Your task to perform on an android device: Go to ESPN.com Image 0: 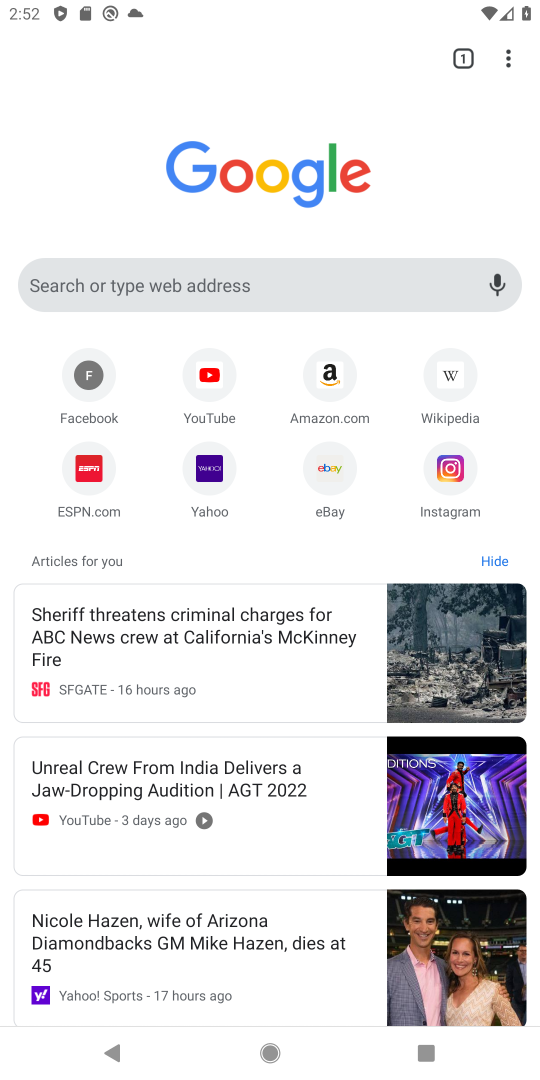
Step 0: click (85, 283)
Your task to perform on an android device: Go to ESPN.com Image 1: 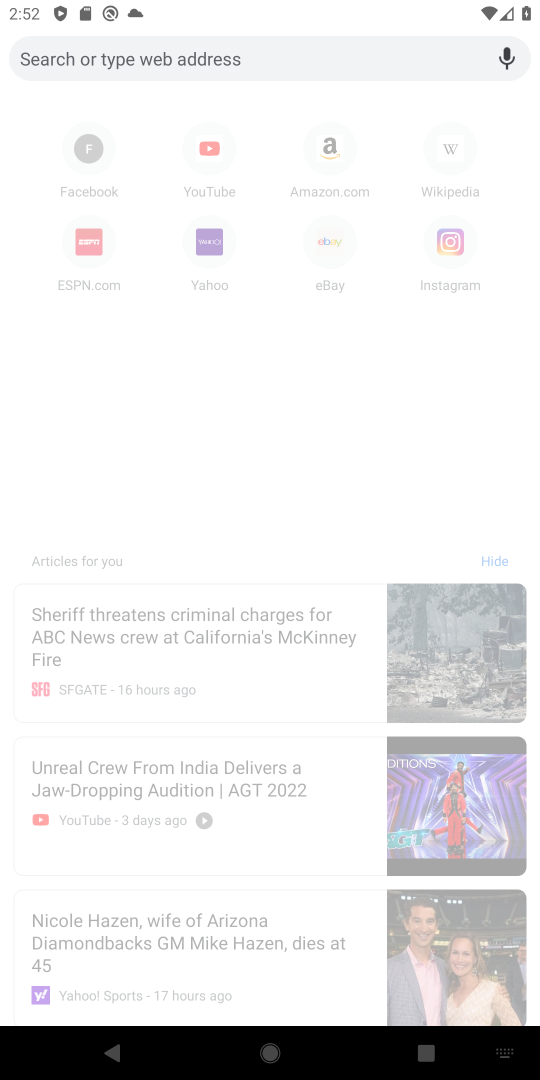
Step 1: type "ESPN.com"
Your task to perform on an android device: Go to ESPN.com Image 2: 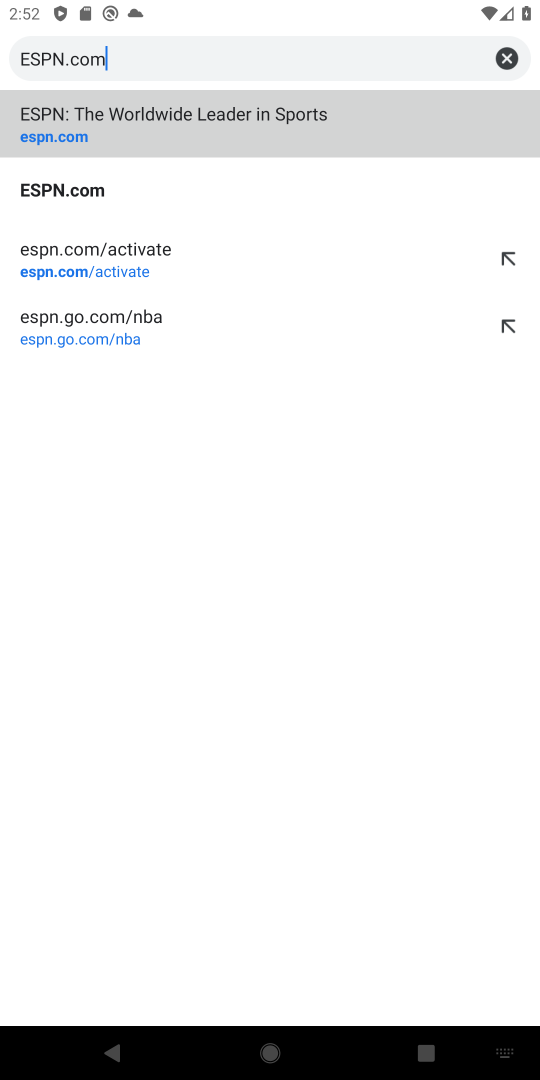
Step 2: click (62, 181)
Your task to perform on an android device: Go to ESPN.com Image 3: 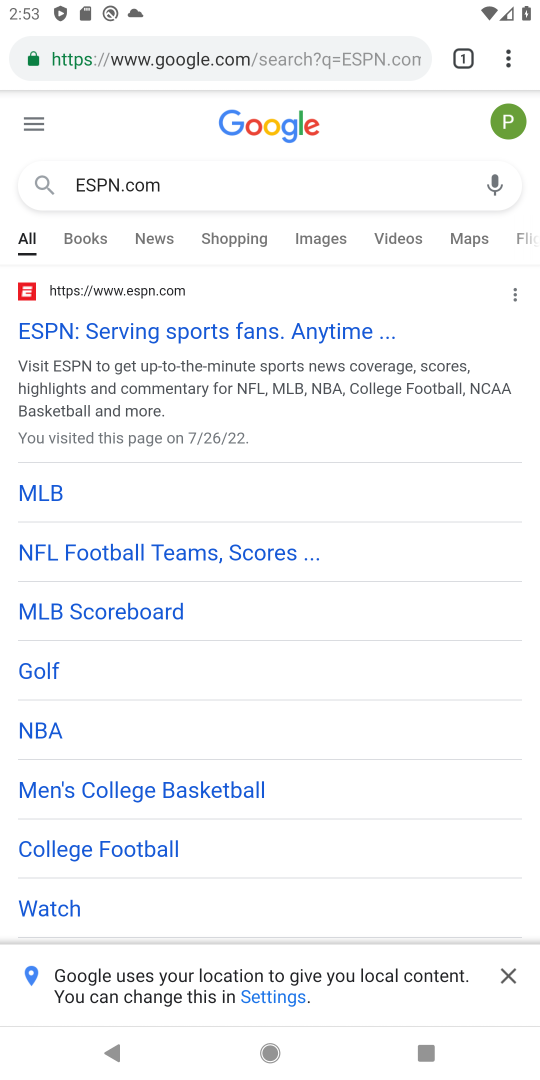
Step 3: task complete